Your task to perform on an android device: Open Chrome and go to settings Image 0: 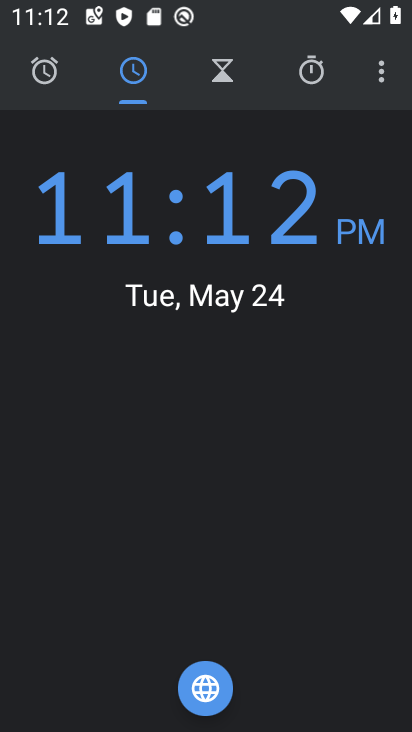
Step 0: press home button
Your task to perform on an android device: Open Chrome and go to settings Image 1: 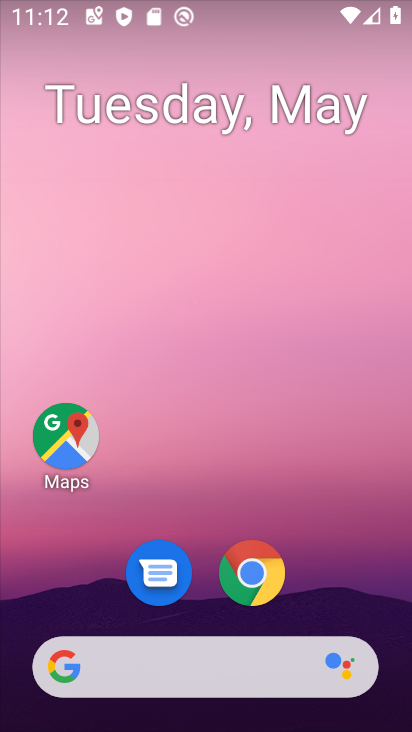
Step 1: drag from (338, 577) to (332, 343)
Your task to perform on an android device: Open Chrome and go to settings Image 2: 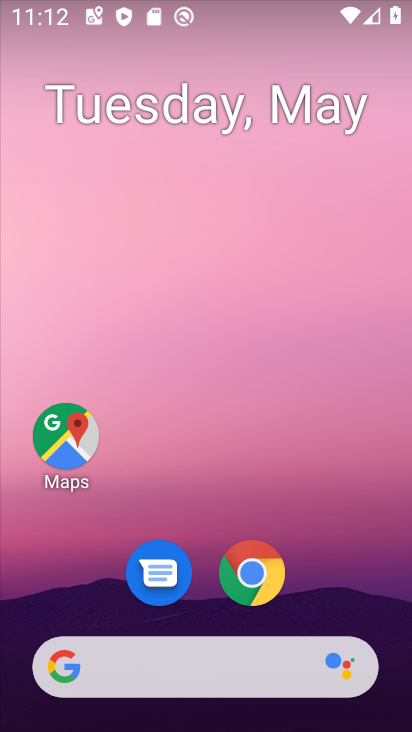
Step 2: drag from (292, 398) to (274, 246)
Your task to perform on an android device: Open Chrome and go to settings Image 3: 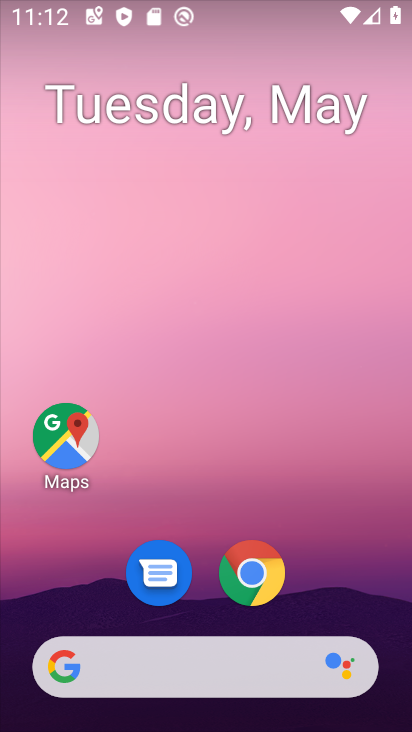
Step 3: click (240, 568)
Your task to perform on an android device: Open Chrome and go to settings Image 4: 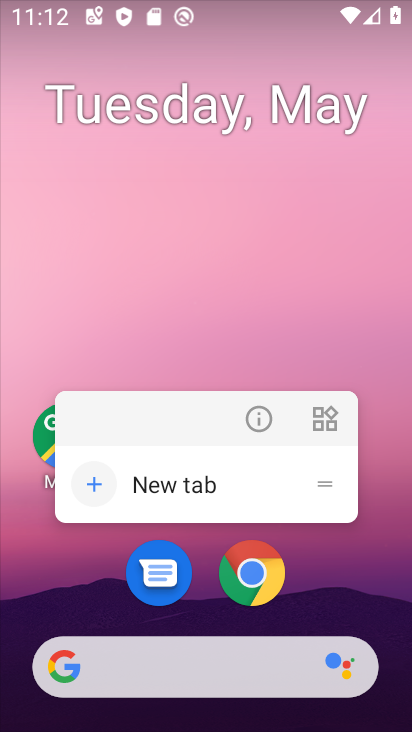
Step 4: click (241, 569)
Your task to perform on an android device: Open Chrome and go to settings Image 5: 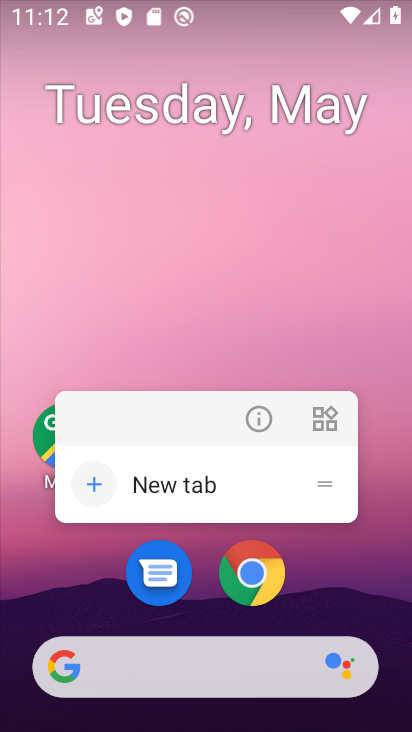
Step 5: click (242, 568)
Your task to perform on an android device: Open Chrome and go to settings Image 6: 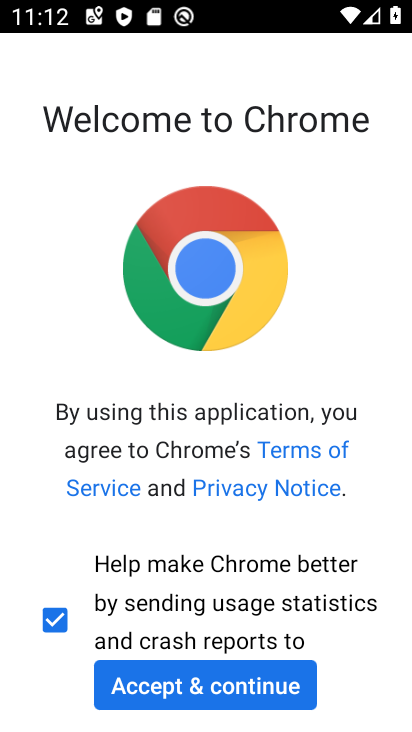
Step 6: click (193, 674)
Your task to perform on an android device: Open Chrome and go to settings Image 7: 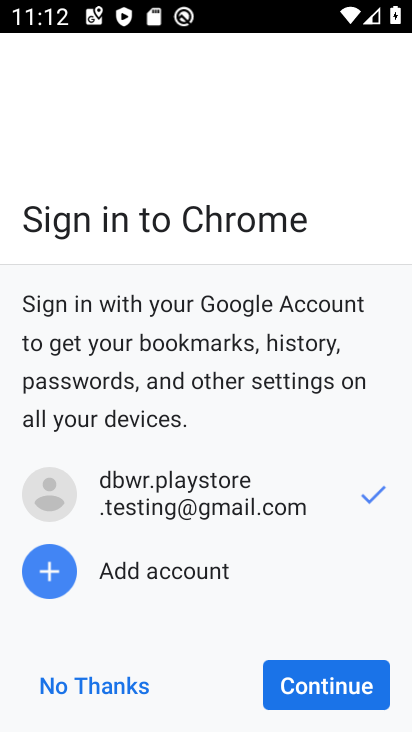
Step 7: click (343, 700)
Your task to perform on an android device: Open Chrome and go to settings Image 8: 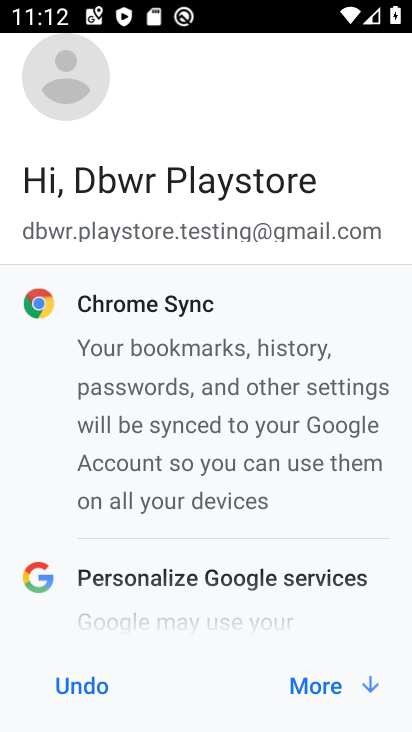
Step 8: click (312, 680)
Your task to perform on an android device: Open Chrome and go to settings Image 9: 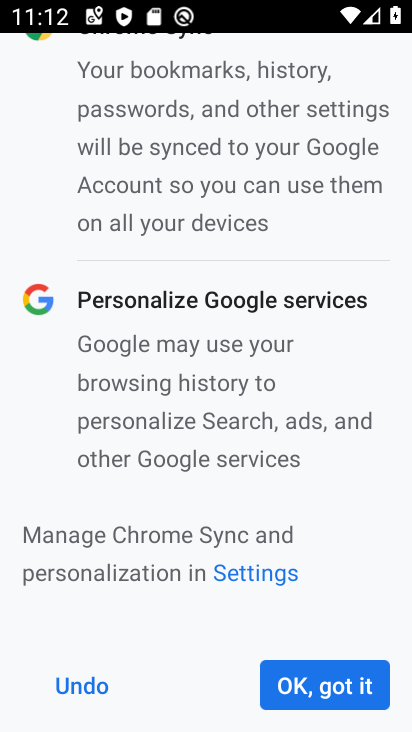
Step 9: click (312, 680)
Your task to perform on an android device: Open Chrome and go to settings Image 10: 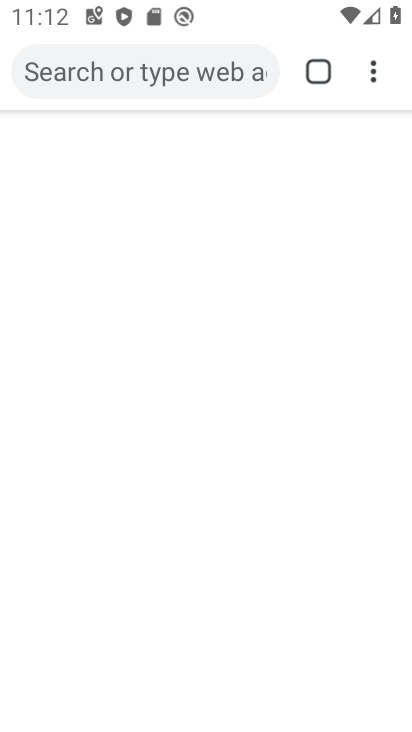
Step 10: click (375, 57)
Your task to perform on an android device: Open Chrome and go to settings Image 11: 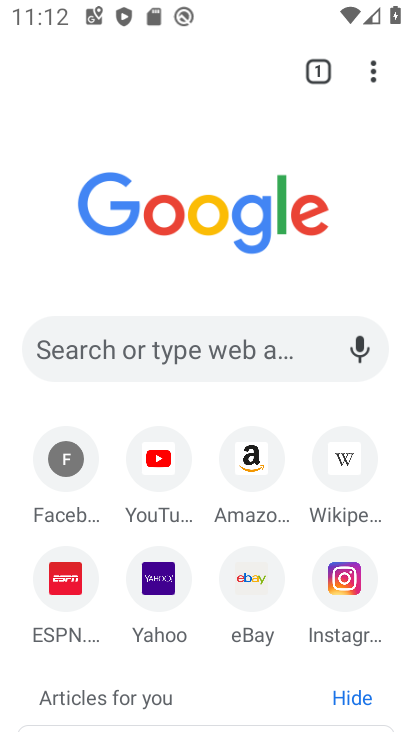
Step 11: click (379, 69)
Your task to perform on an android device: Open Chrome and go to settings Image 12: 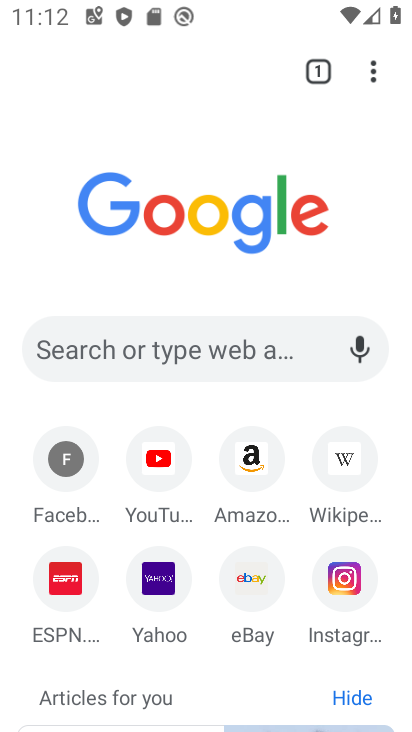
Step 12: click (378, 75)
Your task to perform on an android device: Open Chrome and go to settings Image 13: 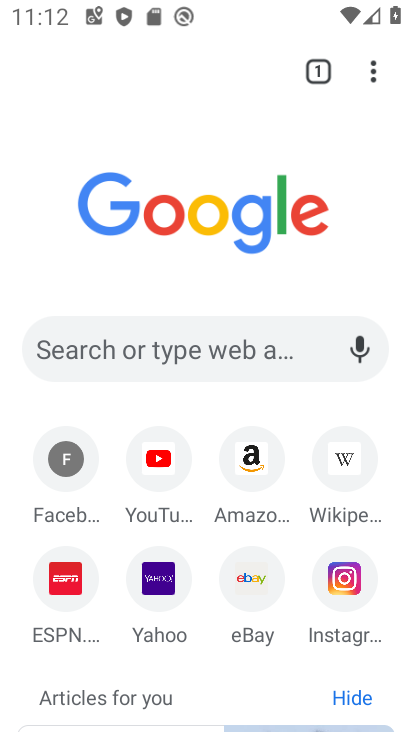
Step 13: click (373, 52)
Your task to perform on an android device: Open Chrome and go to settings Image 14: 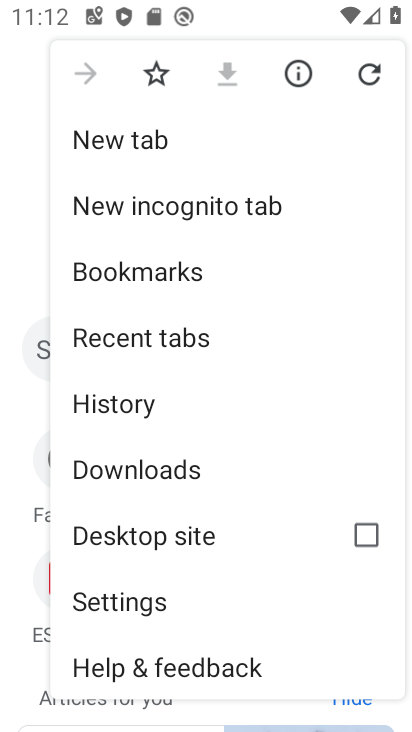
Step 14: drag from (178, 507) to (191, 395)
Your task to perform on an android device: Open Chrome and go to settings Image 15: 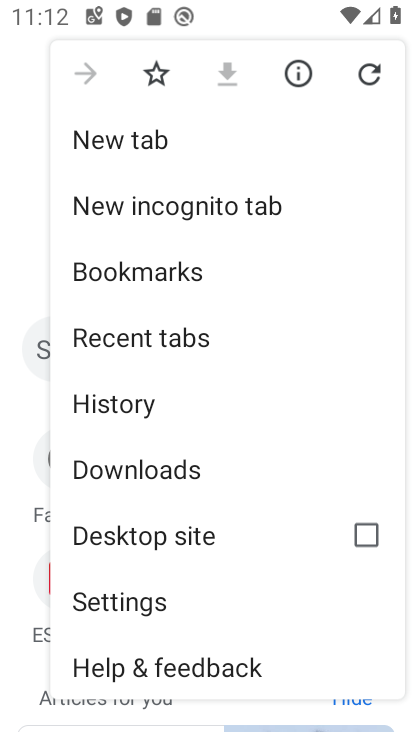
Step 15: click (140, 598)
Your task to perform on an android device: Open Chrome and go to settings Image 16: 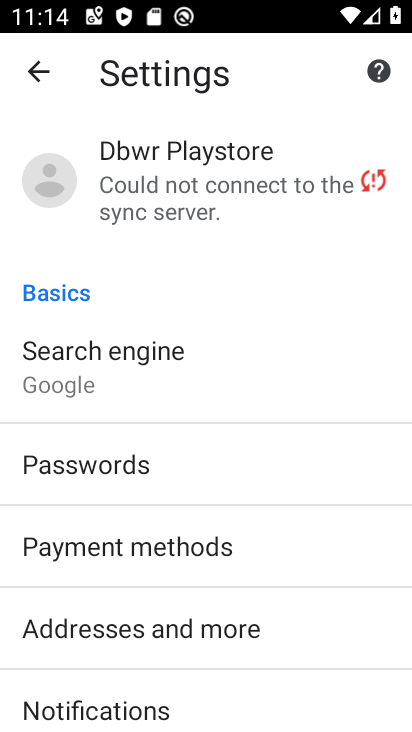
Step 16: task complete